Your task to perform on an android device: turn pop-ups on in chrome Image 0: 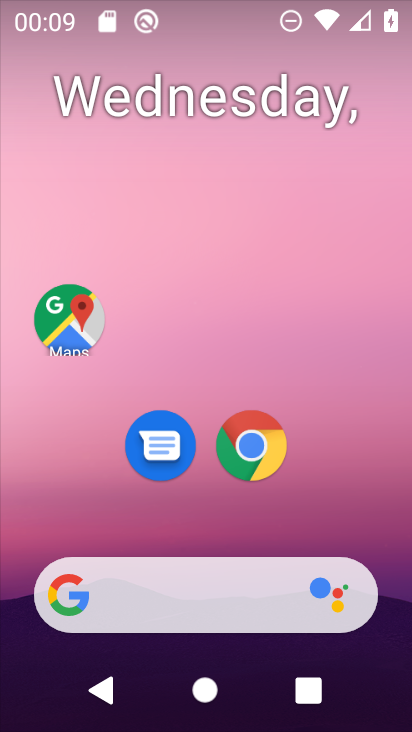
Step 0: click (247, 442)
Your task to perform on an android device: turn pop-ups on in chrome Image 1: 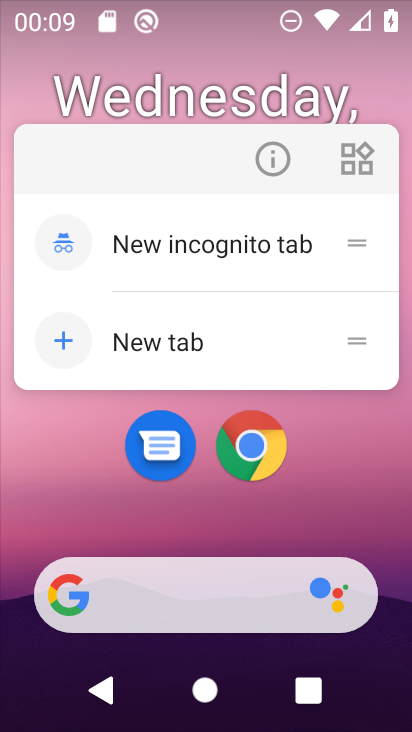
Step 1: click (253, 452)
Your task to perform on an android device: turn pop-ups on in chrome Image 2: 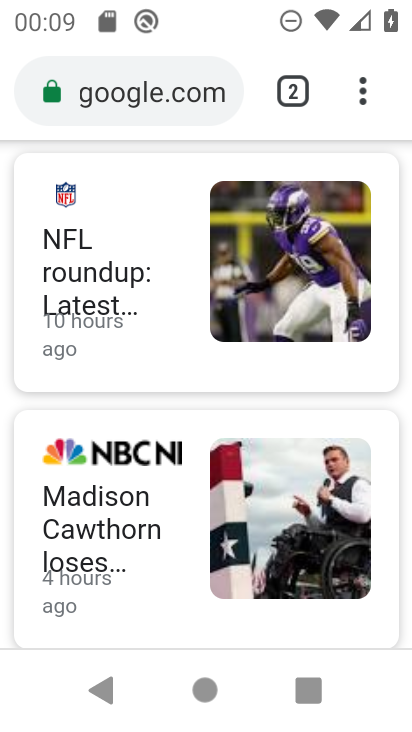
Step 2: click (369, 88)
Your task to perform on an android device: turn pop-ups on in chrome Image 3: 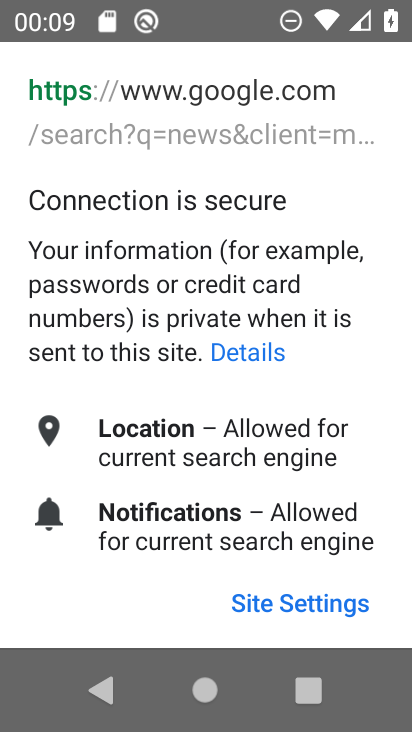
Step 3: press back button
Your task to perform on an android device: turn pop-ups on in chrome Image 4: 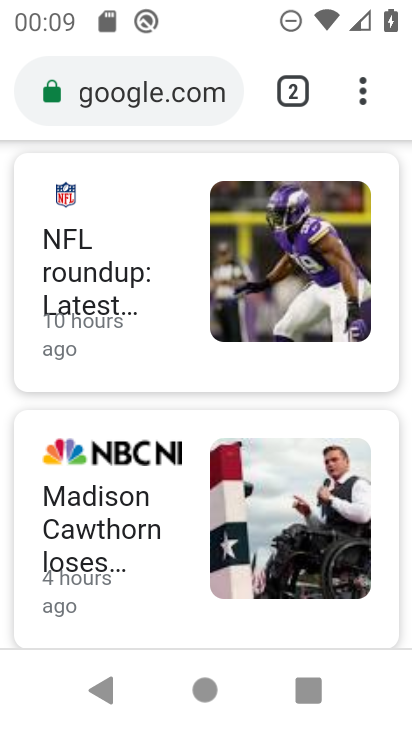
Step 4: click (354, 114)
Your task to perform on an android device: turn pop-ups on in chrome Image 5: 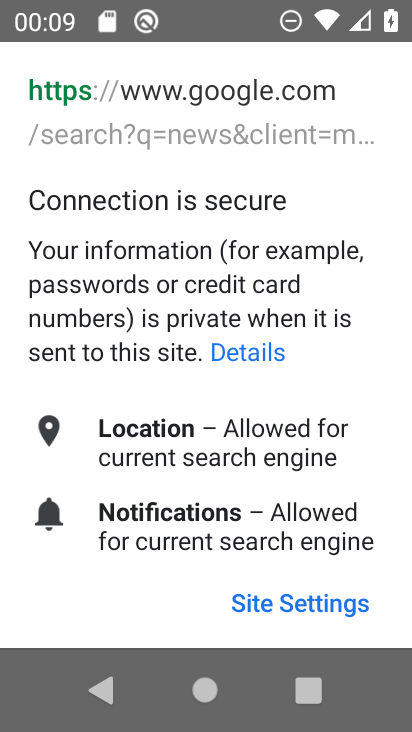
Step 5: press back button
Your task to perform on an android device: turn pop-ups on in chrome Image 6: 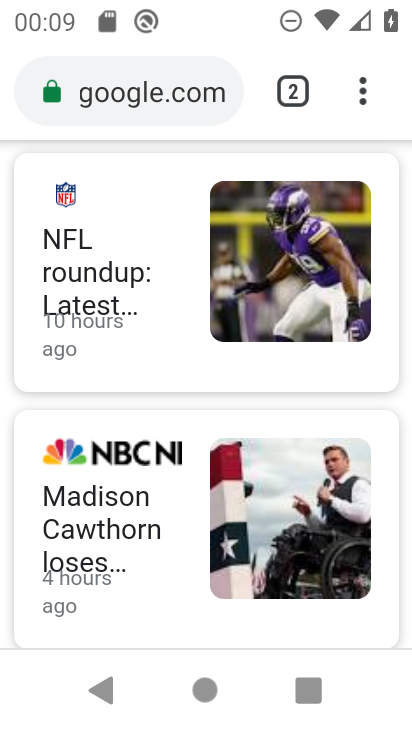
Step 6: click (353, 102)
Your task to perform on an android device: turn pop-ups on in chrome Image 7: 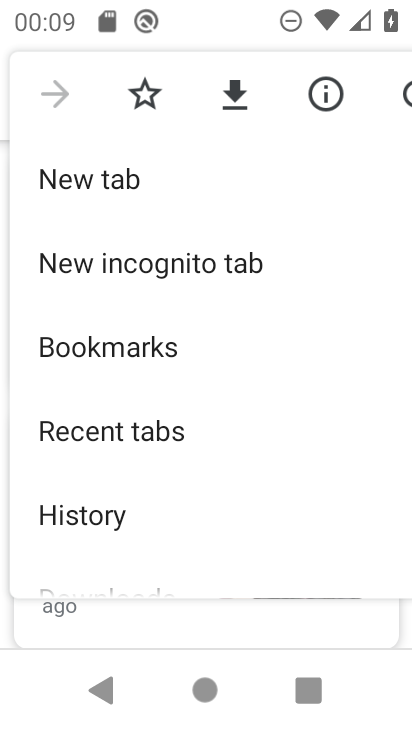
Step 7: drag from (95, 466) to (124, 114)
Your task to perform on an android device: turn pop-ups on in chrome Image 8: 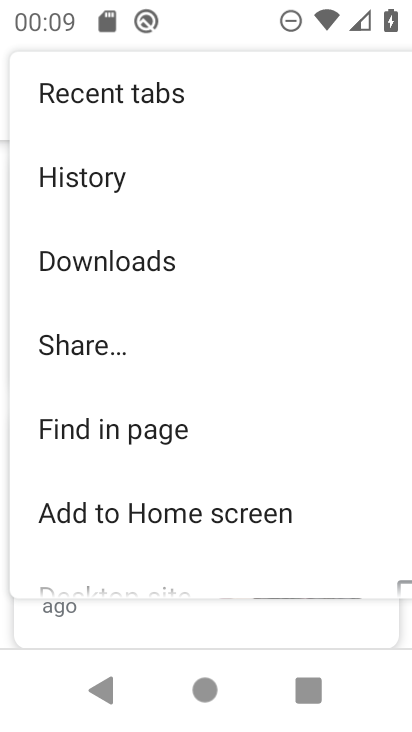
Step 8: drag from (77, 486) to (172, 118)
Your task to perform on an android device: turn pop-ups on in chrome Image 9: 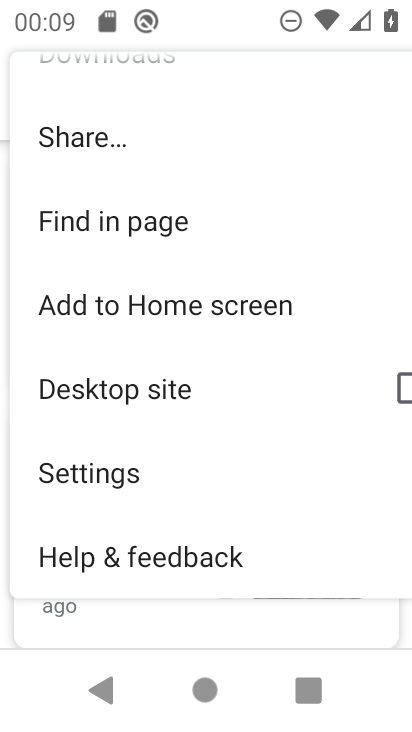
Step 9: click (87, 466)
Your task to perform on an android device: turn pop-ups on in chrome Image 10: 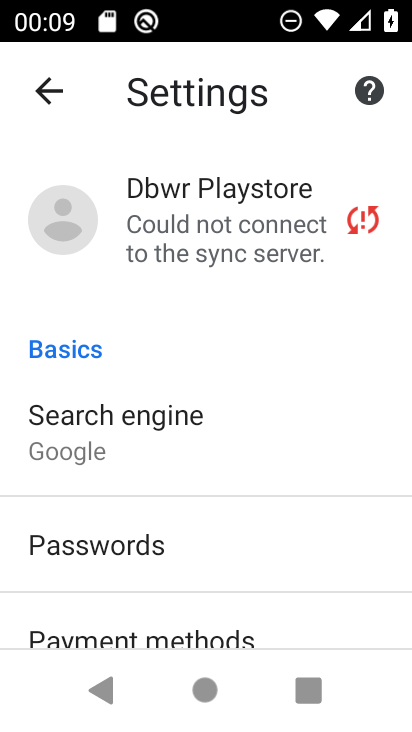
Step 10: drag from (190, 566) to (329, 89)
Your task to perform on an android device: turn pop-ups on in chrome Image 11: 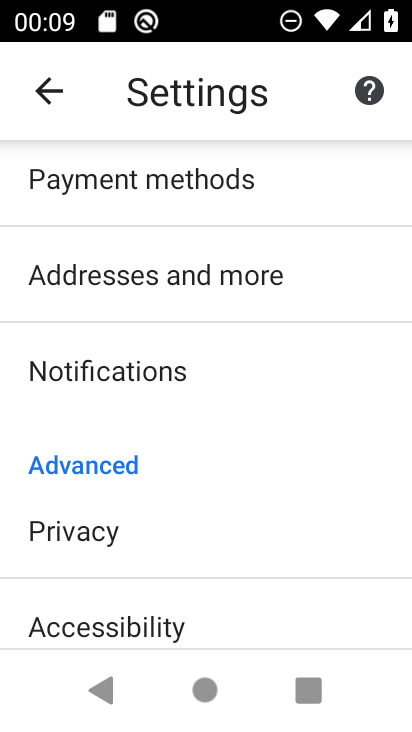
Step 11: drag from (200, 567) to (275, 213)
Your task to perform on an android device: turn pop-ups on in chrome Image 12: 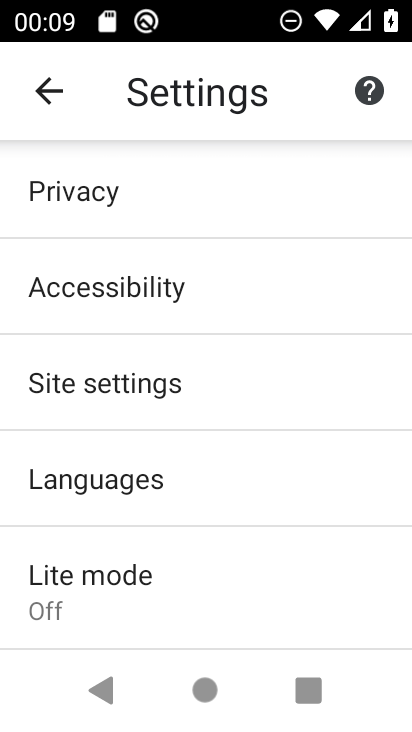
Step 12: click (230, 397)
Your task to perform on an android device: turn pop-ups on in chrome Image 13: 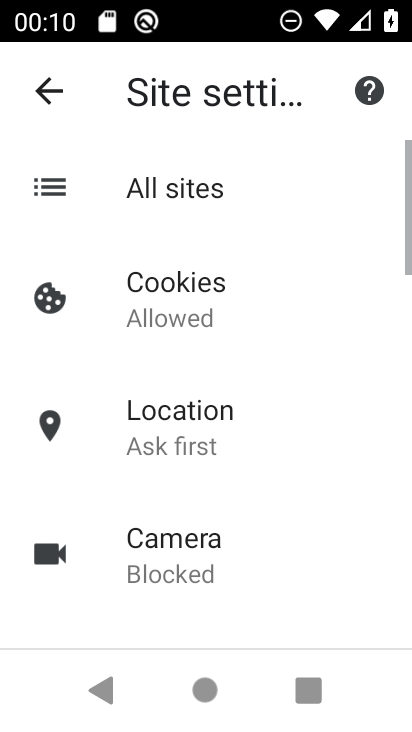
Step 13: drag from (231, 536) to (328, 187)
Your task to perform on an android device: turn pop-ups on in chrome Image 14: 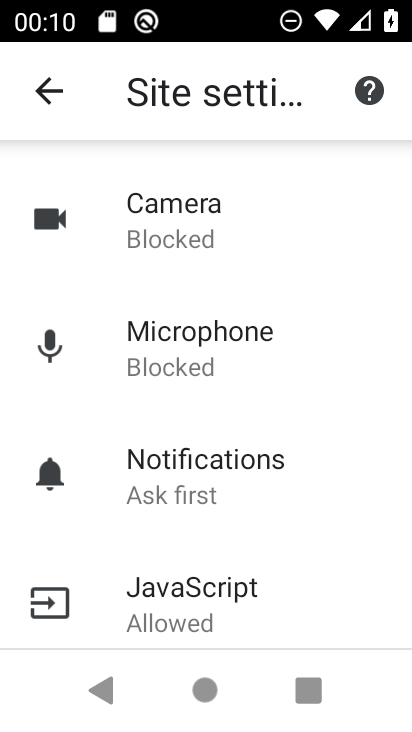
Step 14: drag from (235, 518) to (349, 242)
Your task to perform on an android device: turn pop-ups on in chrome Image 15: 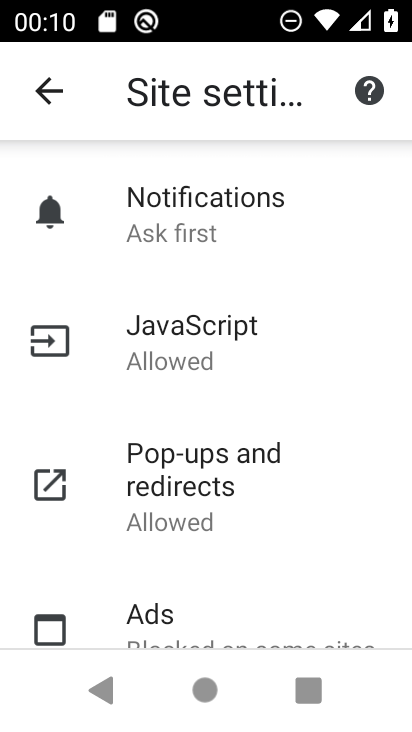
Step 15: click (212, 500)
Your task to perform on an android device: turn pop-ups on in chrome Image 16: 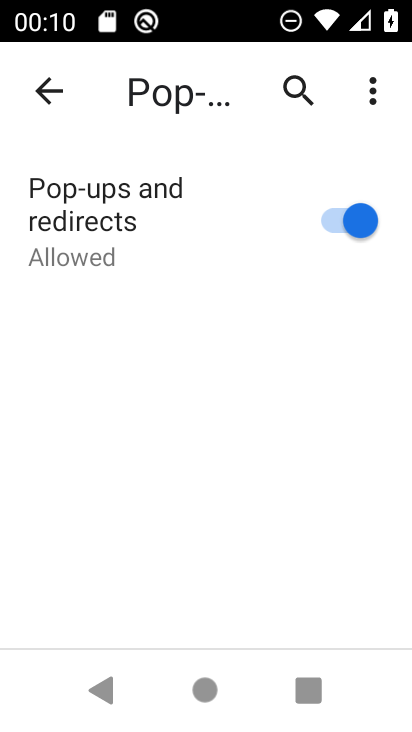
Step 16: task complete